Your task to perform on an android device: Go to Yahoo.com Image 0: 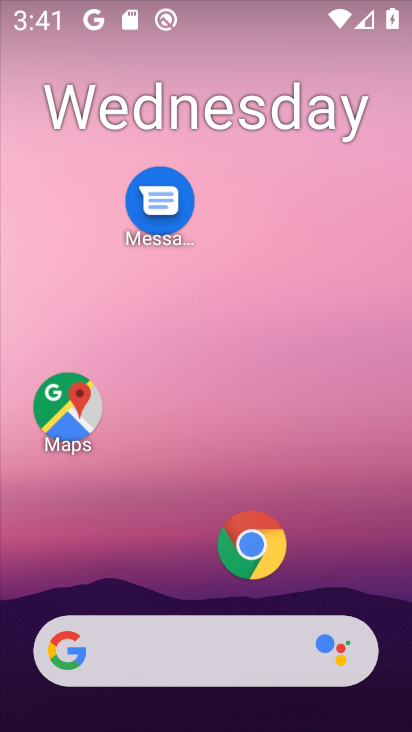
Step 0: click (255, 547)
Your task to perform on an android device: Go to Yahoo.com Image 1: 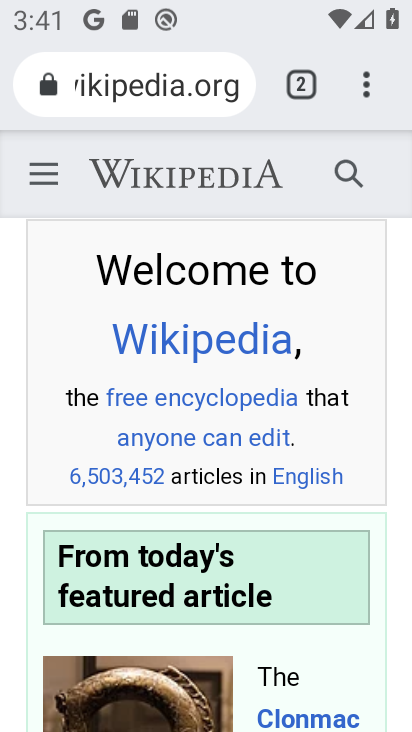
Step 1: click (293, 78)
Your task to perform on an android device: Go to Yahoo.com Image 2: 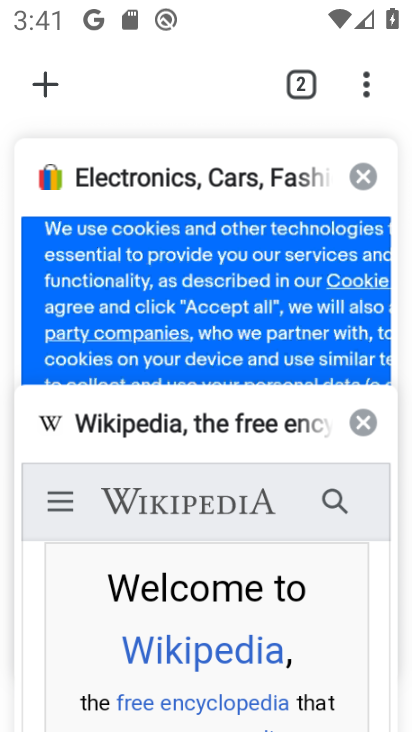
Step 2: click (58, 78)
Your task to perform on an android device: Go to Yahoo.com Image 3: 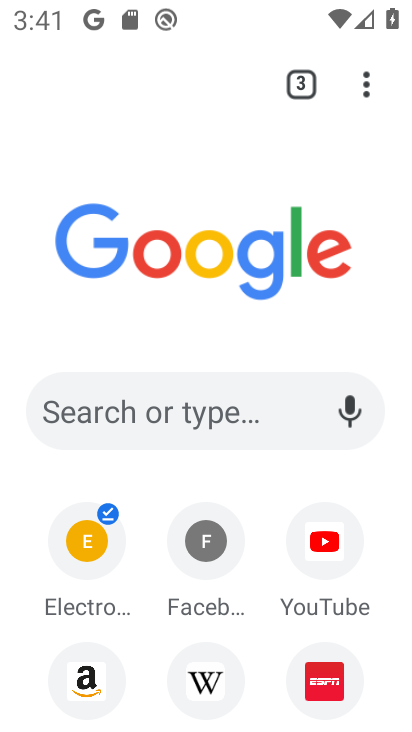
Step 3: click (266, 416)
Your task to perform on an android device: Go to Yahoo.com Image 4: 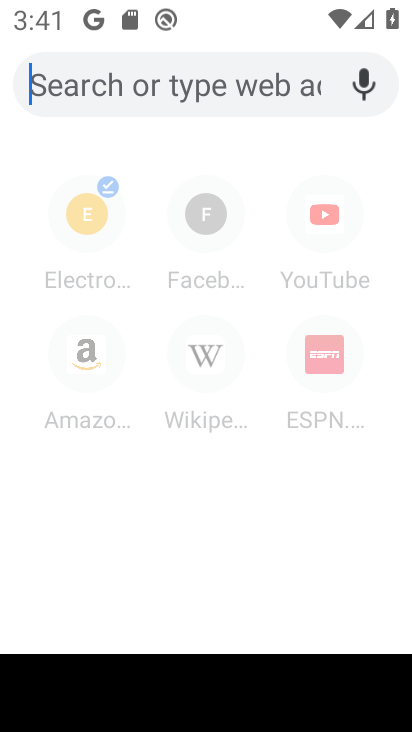
Step 4: type "Yahoo.com"
Your task to perform on an android device: Go to Yahoo.com Image 5: 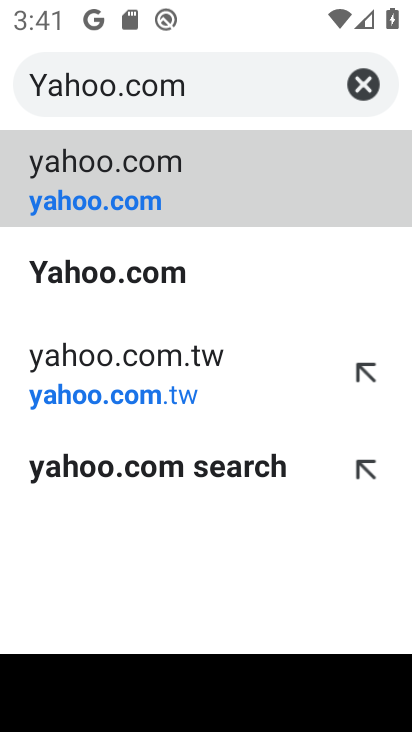
Step 5: click (157, 208)
Your task to perform on an android device: Go to Yahoo.com Image 6: 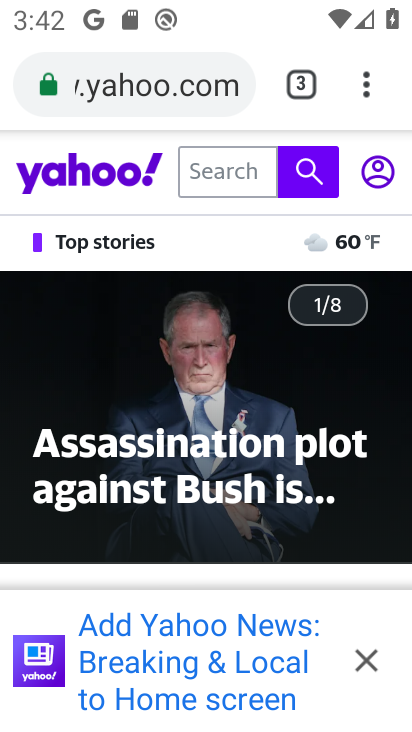
Step 6: task complete